Your task to perform on an android device: change the clock display to analog Image 0: 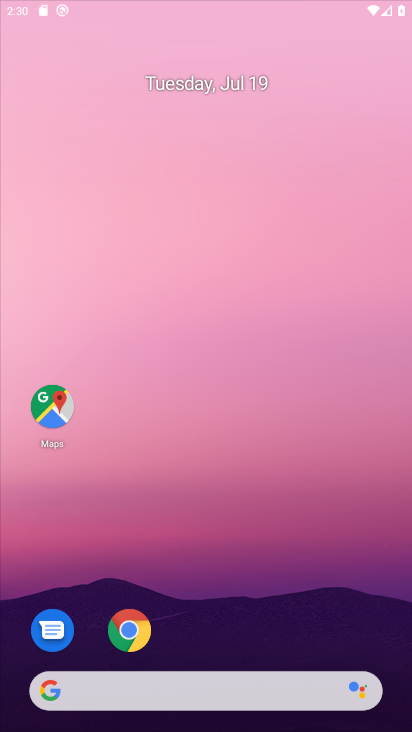
Step 0: drag from (236, 582) to (198, 57)
Your task to perform on an android device: change the clock display to analog Image 1: 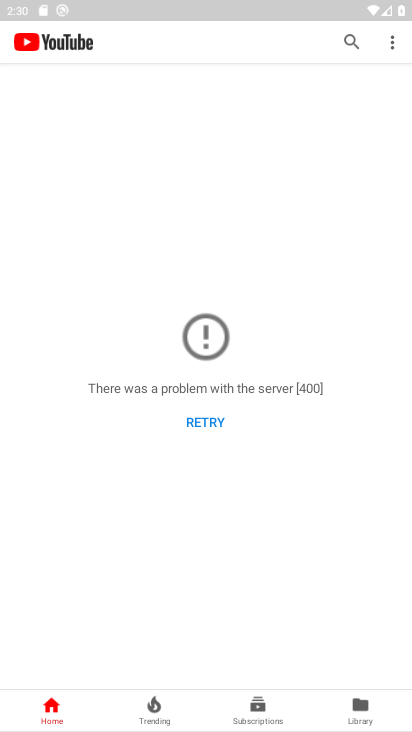
Step 1: press home button
Your task to perform on an android device: change the clock display to analog Image 2: 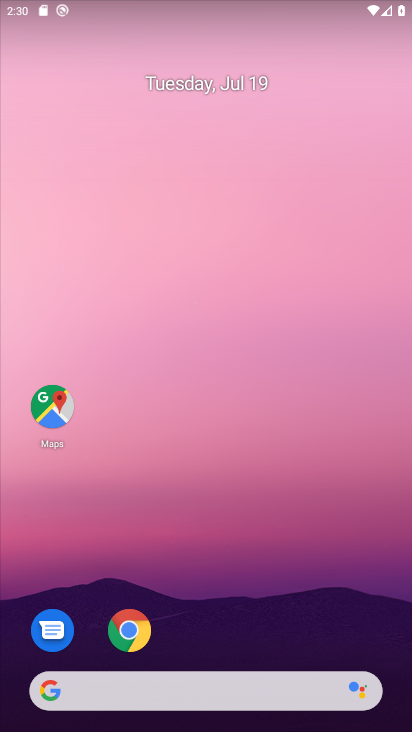
Step 2: drag from (268, 567) to (243, 102)
Your task to perform on an android device: change the clock display to analog Image 3: 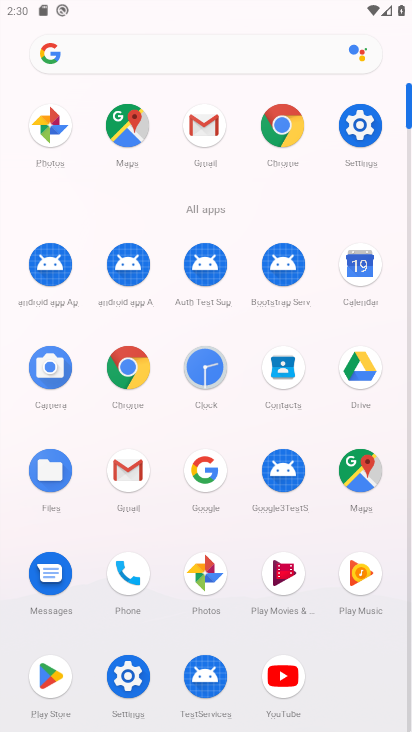
Step 3: click (204, 364)
Your task to perform on an android device: change the clock display to analog Image 4: 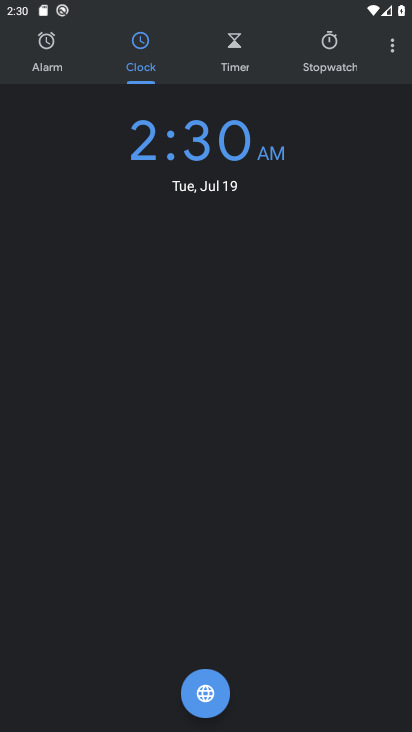
Step 4: click (395, 48)
Your task to perform on an android device: change the clock display to analog Image 5: 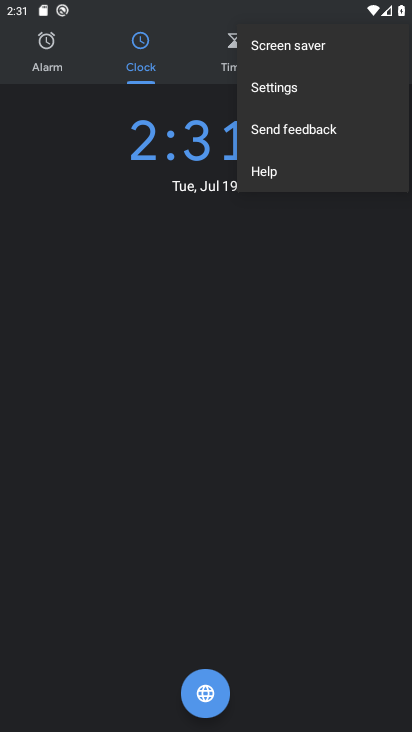
Step 5: click (302, 89)
Your task to perform on an android device: change the clock display to analog Image 6: 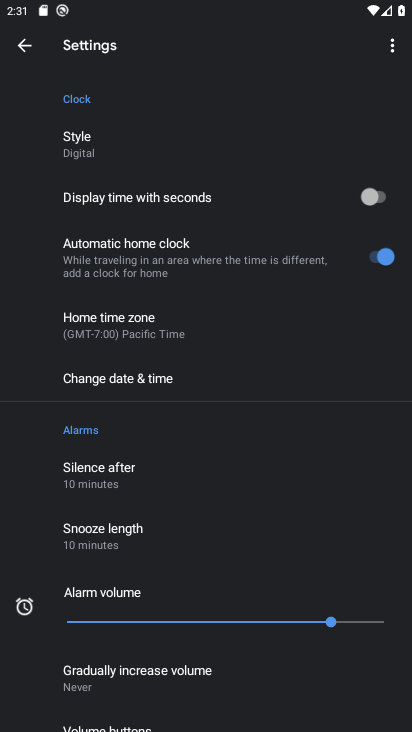
Step 6: click (86, 140)
Your task to perform on an android device: change the clock display to analog Image 7: 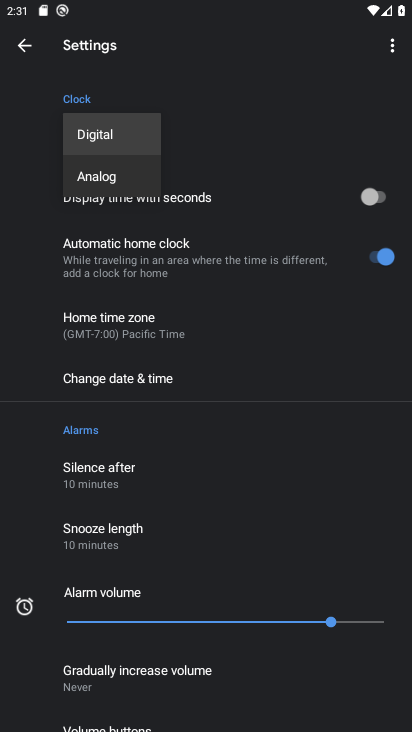
Step 7: click (94, 175)
Your task to perform on an android device: change the clock display to analog Image 8: 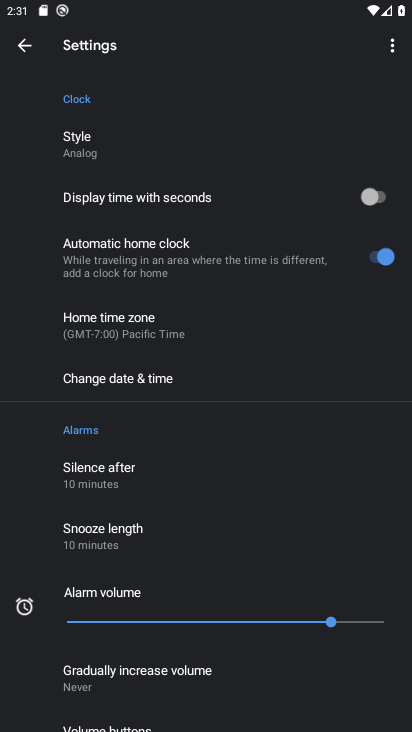
Step 8: task complete